Your task to perform on an android device: stop showing notifications on the lock screen Image 0: 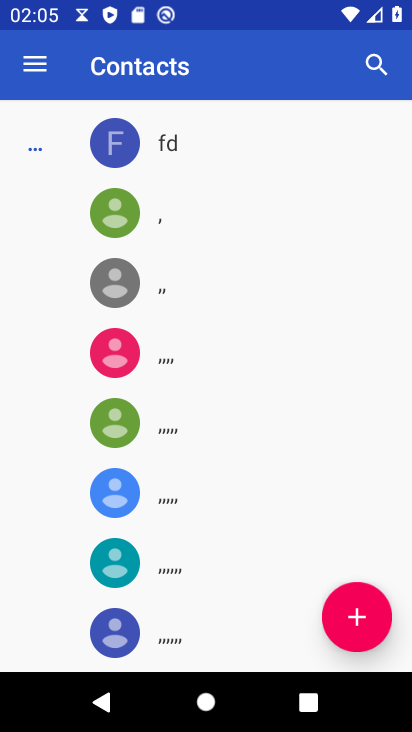
Step 0: press home button
Your task to perform on an android device: stop showing notifications on the lock screen Image 1: 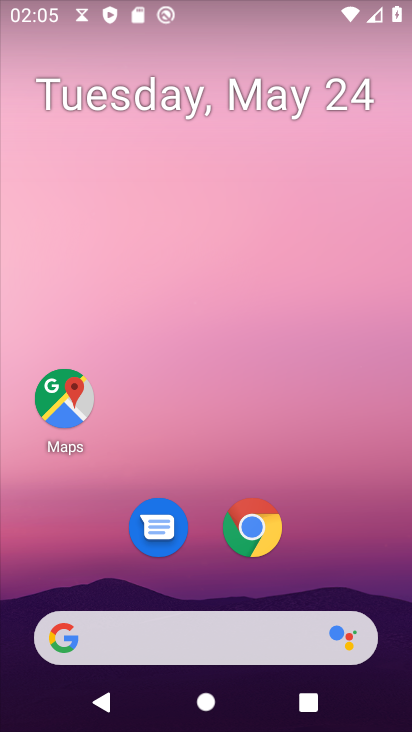
Step 1: drag from (154, 636) to (295, 211)
Your task to perform on an android device: stop showing notifications on the lock screen Image 2: 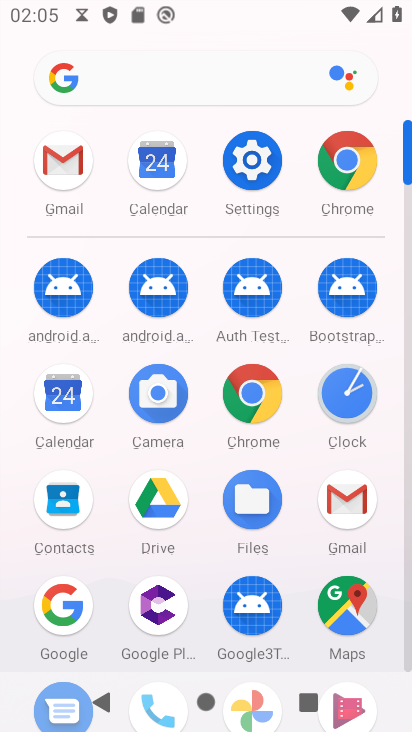
Step 2: click (262, 179)
Your task to perform on an android device: stop showing notifications on the lock screen Image 3: 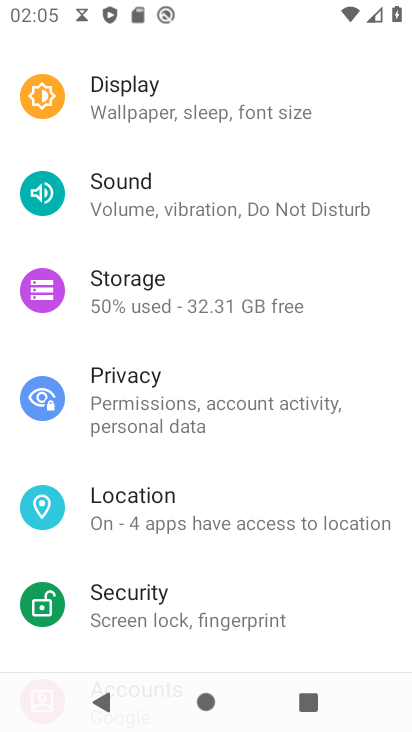
Step 3: drag from (300, 243) to (297, 611)
Your task to perform on an android device: stop showing notifications on the lock screen Image 4: 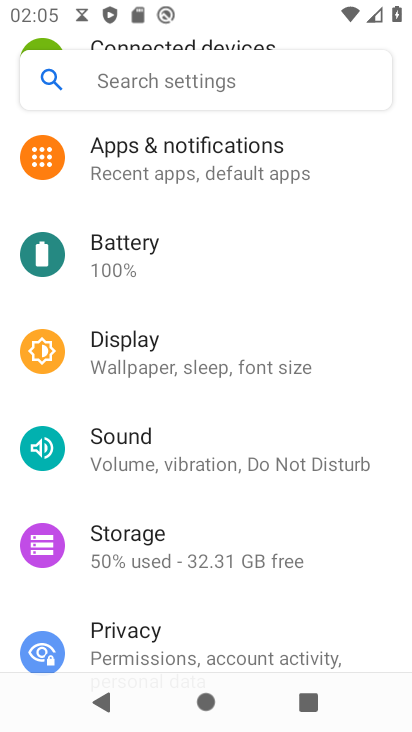
Step 4: click (219, 148)
Your task to perform on an android device: stop showing notifications on the lock screen Image 5: 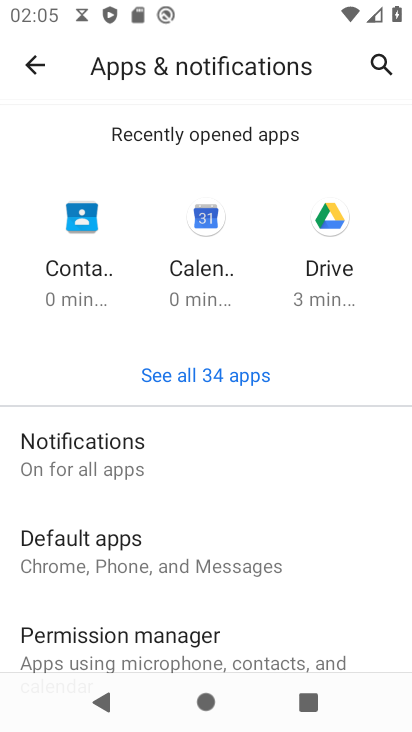
Step 5: click (104, 458)
Your task to perform on an android device: stop showing notifications on the lock screen Image 6: 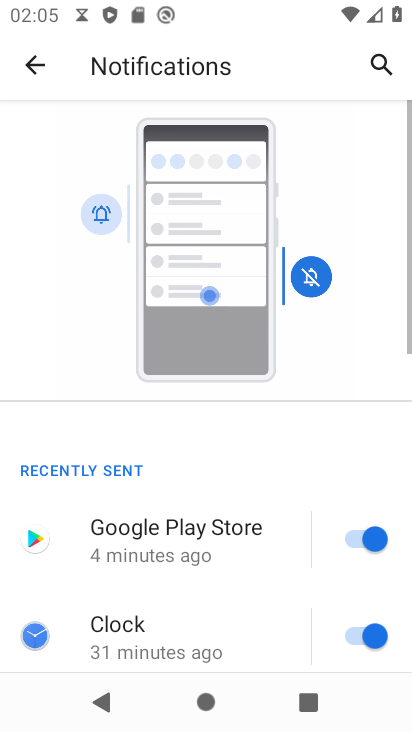
Step 6: drag from (205, 578) to (330, 59)
Your task to perform on an android device: stop showing notifications on the lock screen Image 7: 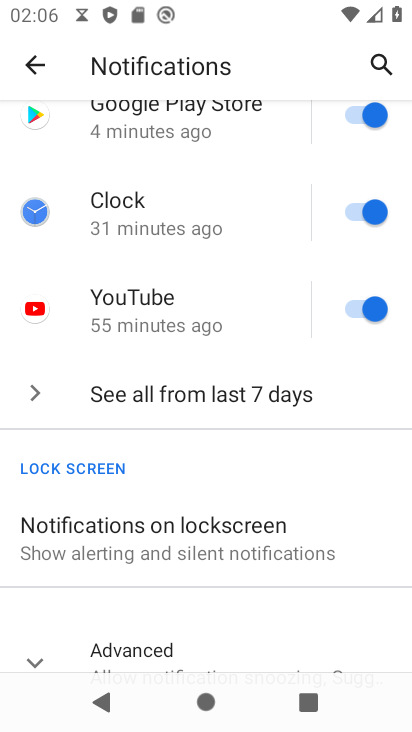
Step 7: click (229, 535)
Your task to perform on an android device: stop showing notifications on the lock screen Image 8: 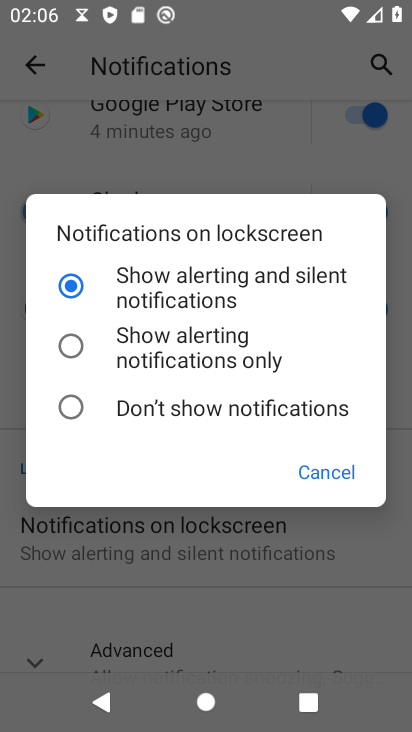
Step 8: click (69, 400)
Your task to perform on an android device: stop showing notifications on the lock screen Image 9: 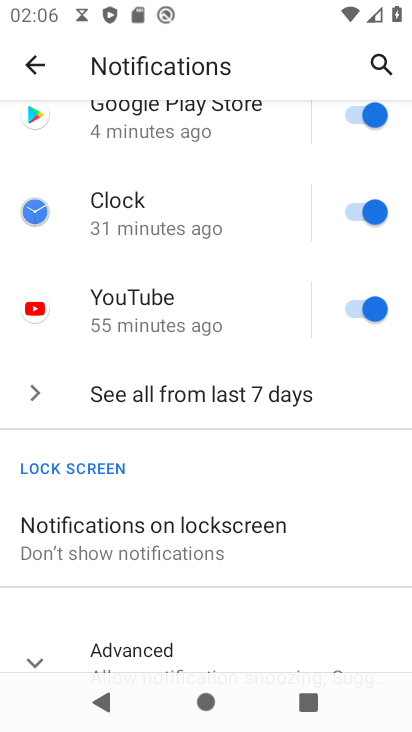
Step 9: task complete